Your task to perform on an android device: read, delete, or share a saved page in the chrome app Image 0: 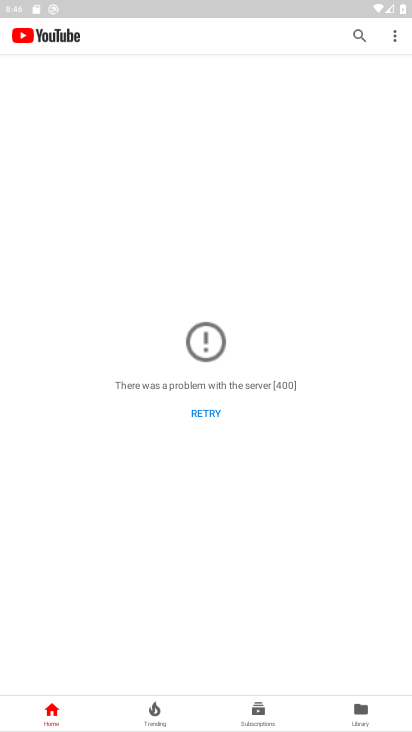
Step 0: press back button
Your task to perform on an android device: read, delete, or share a saved page in the chrome app Image 1: 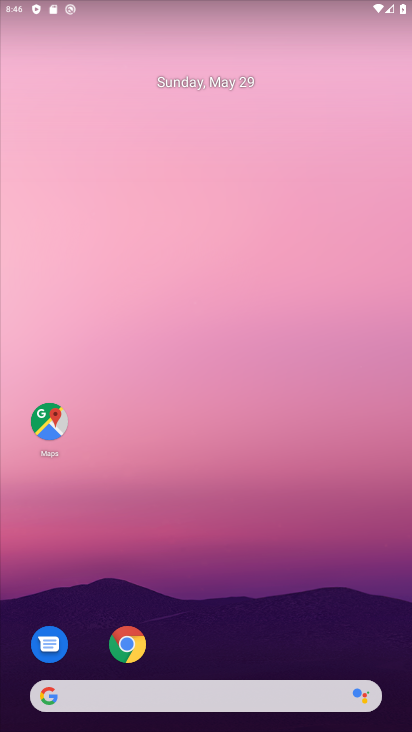
Step 1: drag from (233, 563) to (203, 4)
Your task to perform on an android device: read, delete, or share a saved page in the chrome app Image 2: 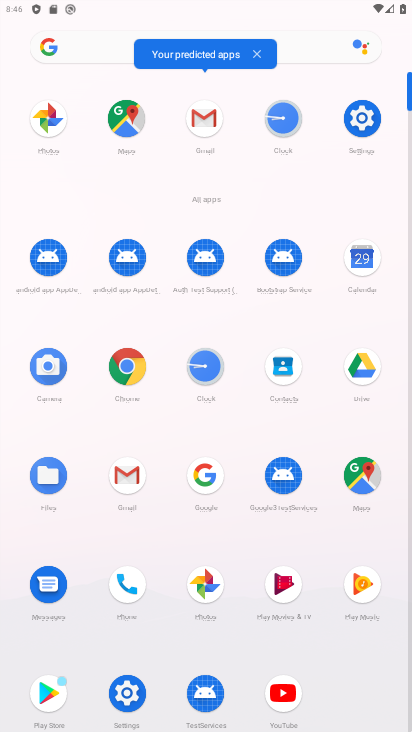
Step 2: click (123, 361)
Your task to perform on an android device: read, delete, or share a saved page in the chrome app Image 3: 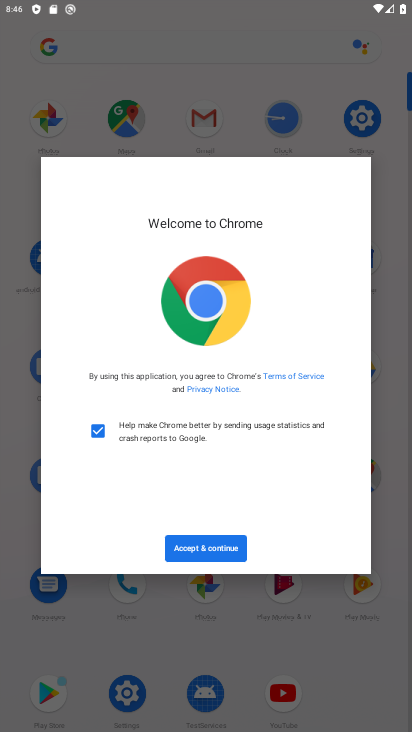
Step 3: click (182, 554)
Your task to perform on an android device: read, delete, or share a saved page in the chrome app Image 4: 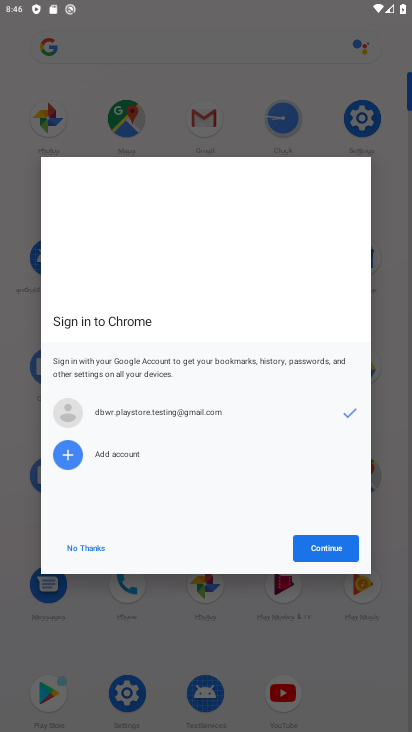
Step 4: click (314, 551)
Your task to perform on an android device: read, delete, or share a saved page in the chrome app Image 5: 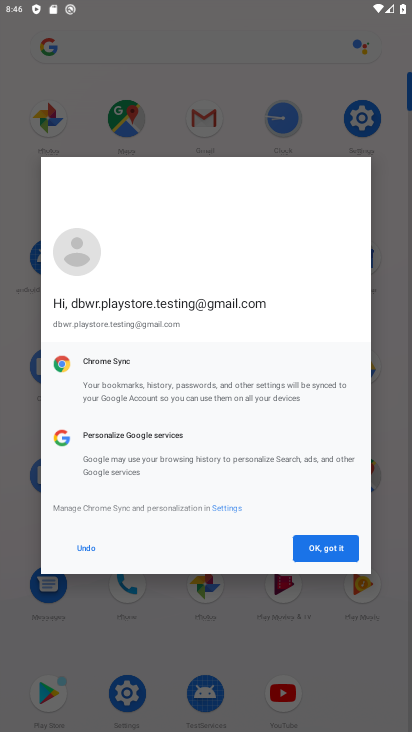
Step 5: click (317, 548)
Your task to perform on an android device: read, delete, or share a saved page in the chrome app Image 6: 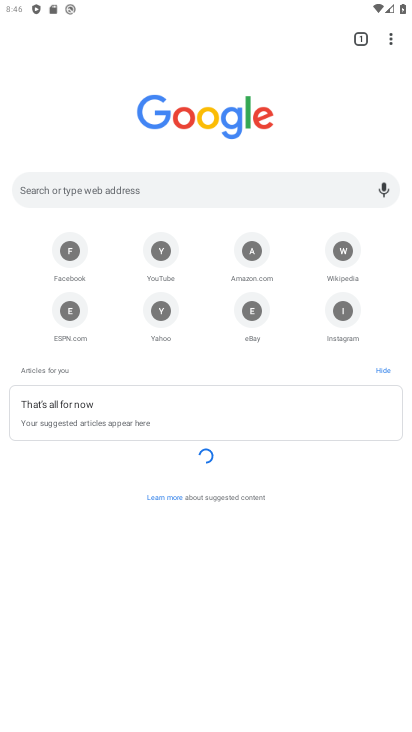
Step 6: task complete